Your task to perform on an android device: Open settings Image 0: 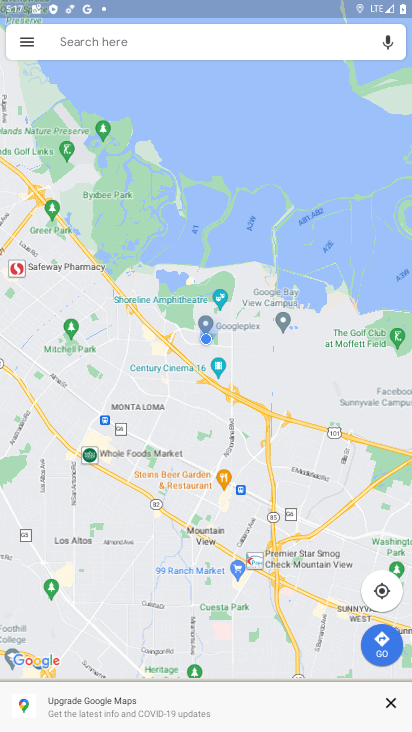
Step 0: press back button
Your task to perform on an android device: Open settings Image 1: 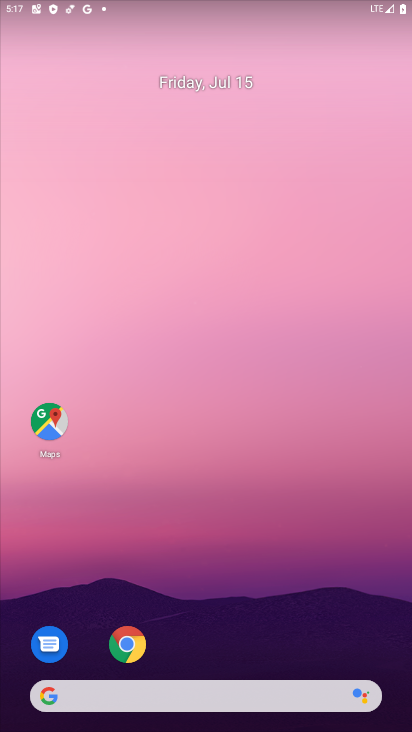
Step 1: drag from (209, 650) to (152, 328)
Your task to perform on an android device: Open settings Image 2: 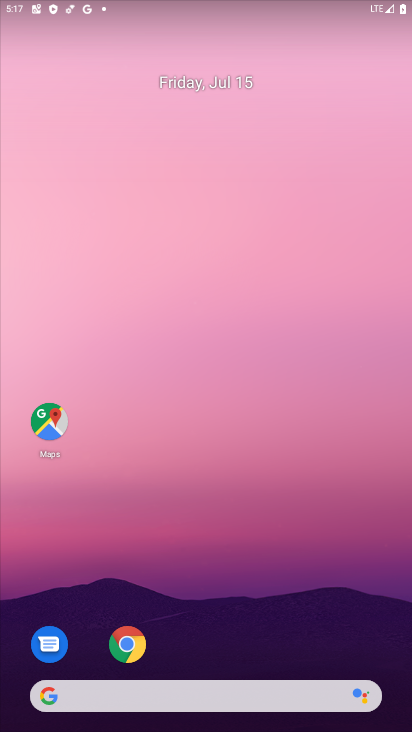
Step 2: drag from (176, 502) to (144, 117)
Your task to perform on an android device: Open settings Image 3: 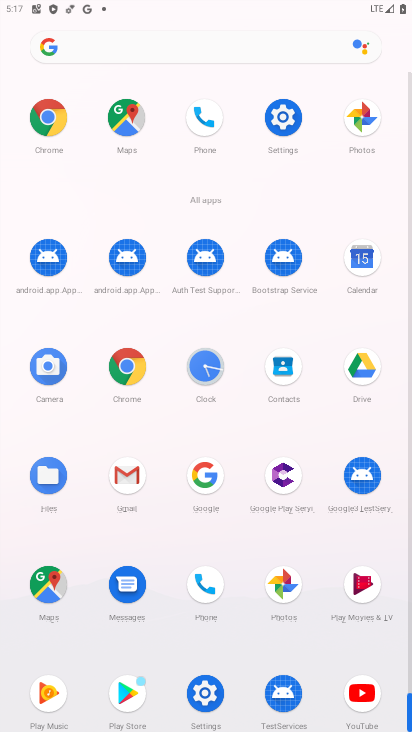
Step 3: click (285, 109)
Your task to perform on an android device: Open settings Image 4: 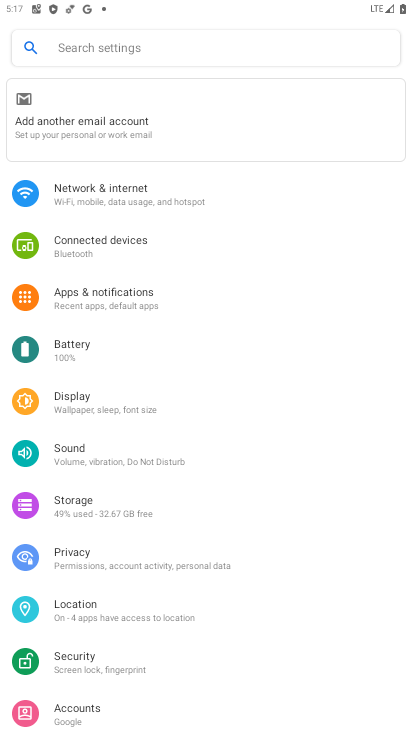
Step 4: task complete